Your task to perform on an android device: turn off wifi Image 0: 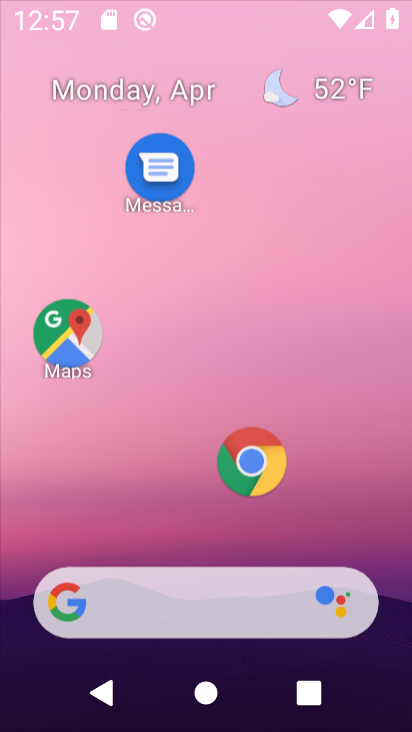
Step 0: click (192, 135)
Your task to perform on an android device: turn off wifi Image 1: 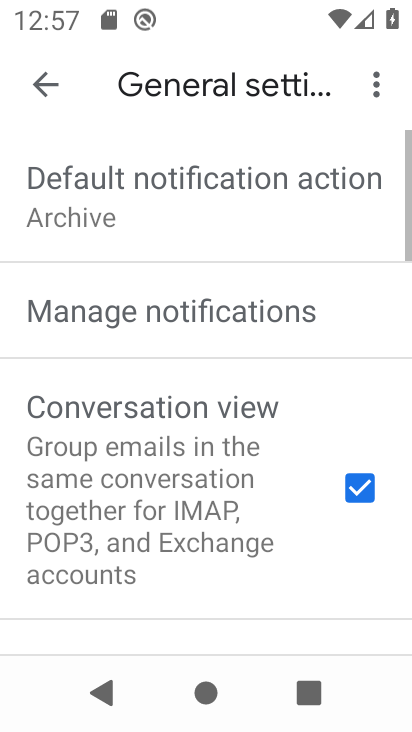
Step 1: press home button
Your task to perform on an android device: turn off wifi Image 2: 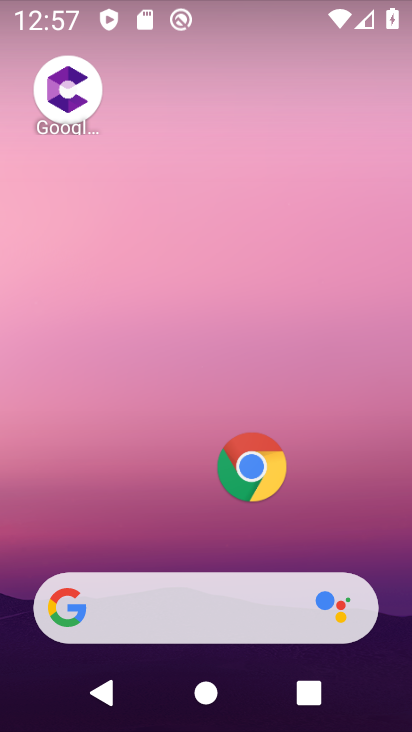
Step 2: drag from (197, 283) to (197, 139)
Your task to perform on an android device: turn off wifi Image 3: 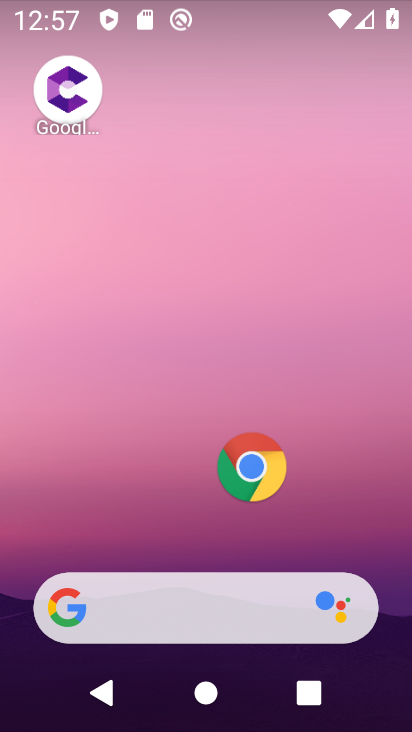
Step 3: drag from (190, 347) to (190, 91)
Your task to perform on an android device: turn off wifi Image 4: 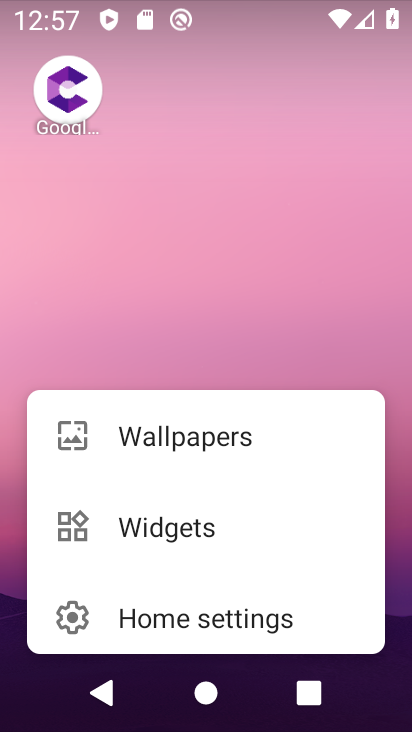
Step 4: click (194, 264)
Your task to perform on an android device: turn off wifi Image 5: 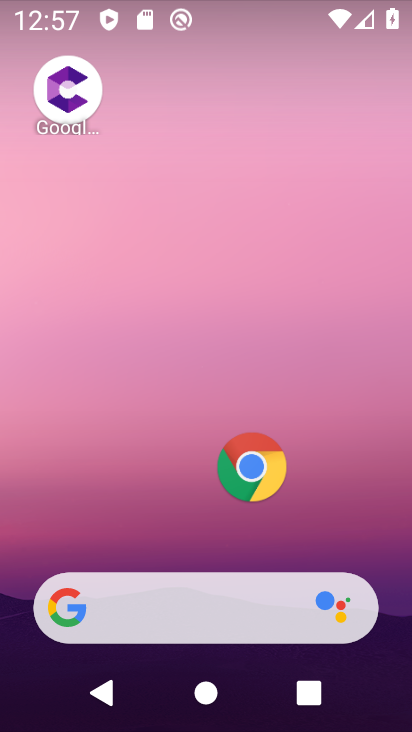
Step 5: drag from (190, 377) to (200, 73)
Your task to perform on an android device: turn off wifi Image 6: 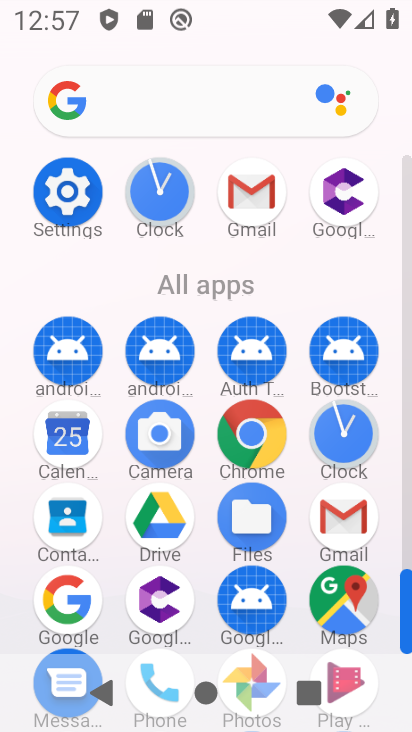
Step 6: click (72, 194)
Your task to perform on an android device: turn off wifi Image 7: 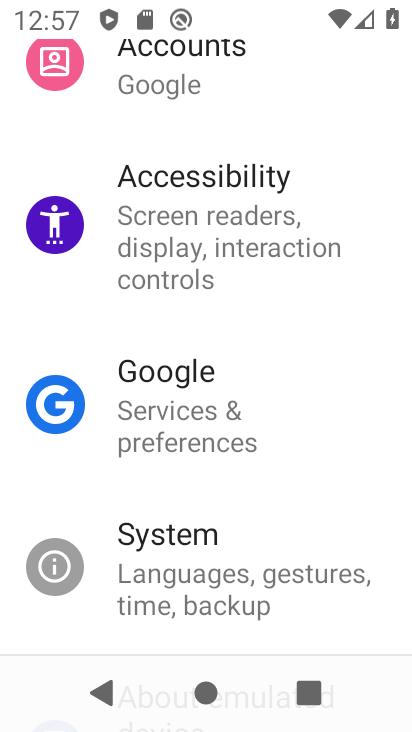
Step 7: drag from (175, 164) to (176, 529)
Your task to perform on an android device: turn off wifi Image 8: 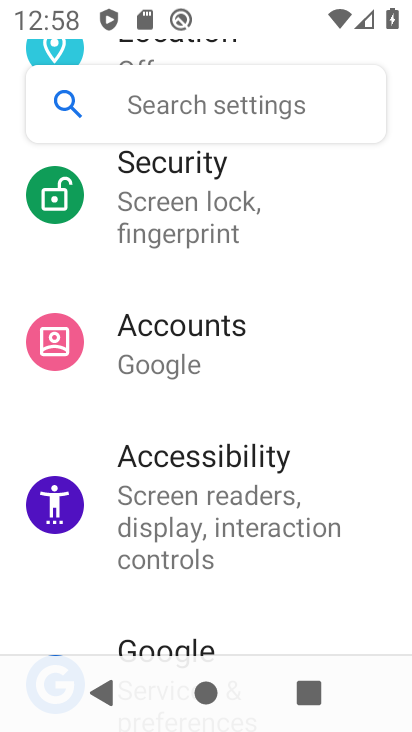
Step 8: drag from (272, 186) to (243, 504)
Your task to perform on an android device: turn off wifi Image 9: 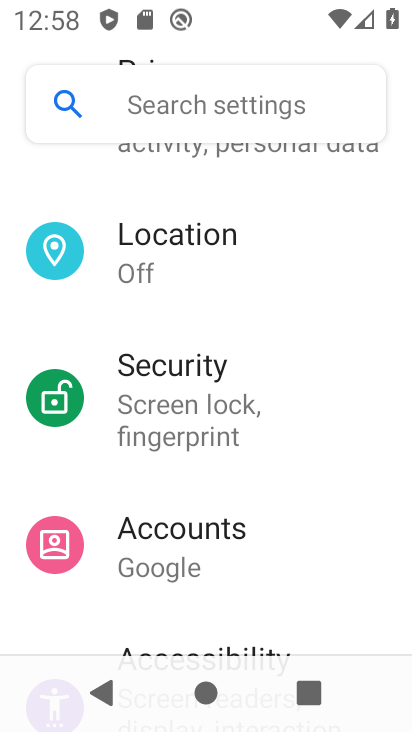
Step 9: drag from (230, 294) to (218, 526)
Your task to perform on an android device: turn off wifi Image 10: 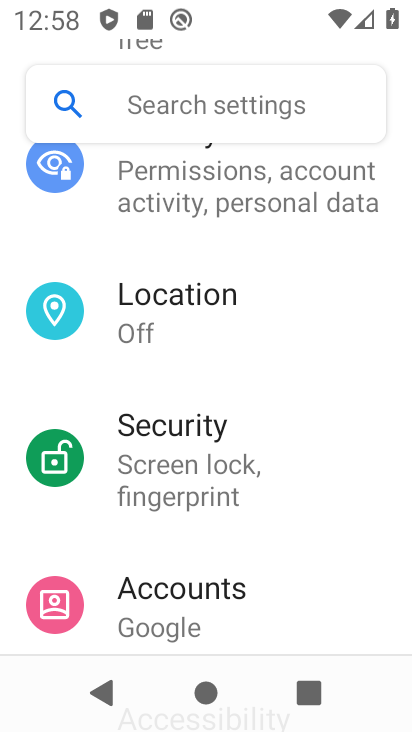
Step 10: drag from (211, 275) to (208, 551)
Your task to perform on an android device: turn off wifi Image 11: 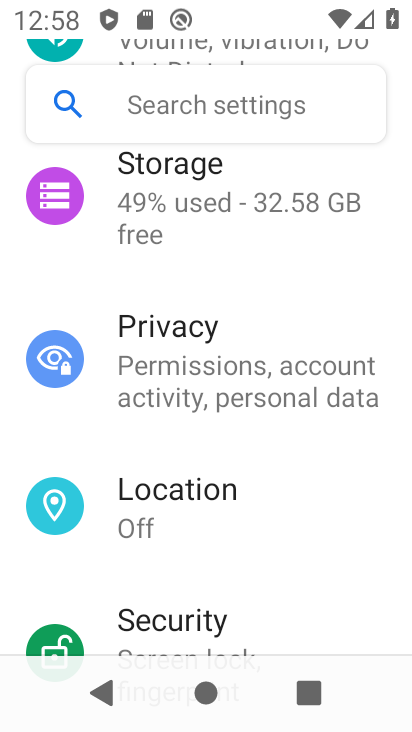
Step 11: drag from (235, 266) to (225, 548)
Your task to perform on an android device: turn off wifi Image 12: 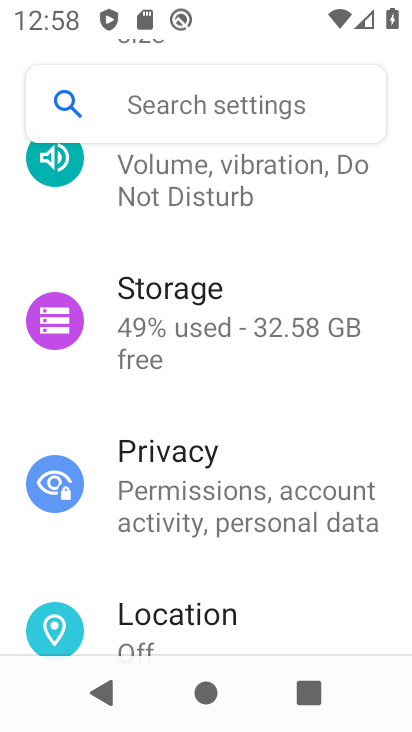
Step 12: drag from (225, 334) to (233, 570)
Your task to perform on an android device: turn off wifi Image 13: 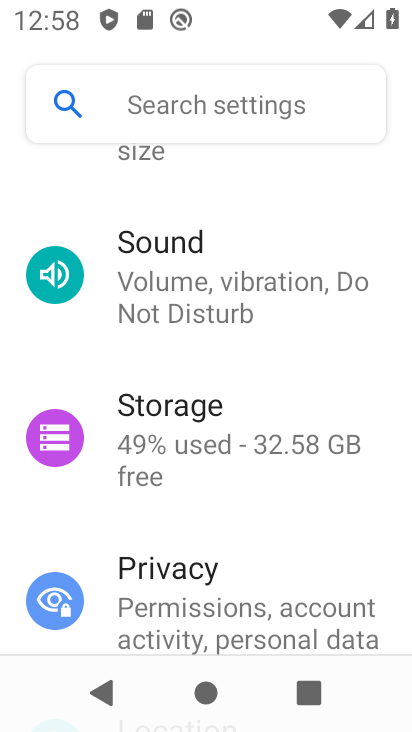
Step 13: drag from (225, 254) to (235, 487)
Your task to perform on an android device: turn off wifi Image 14: 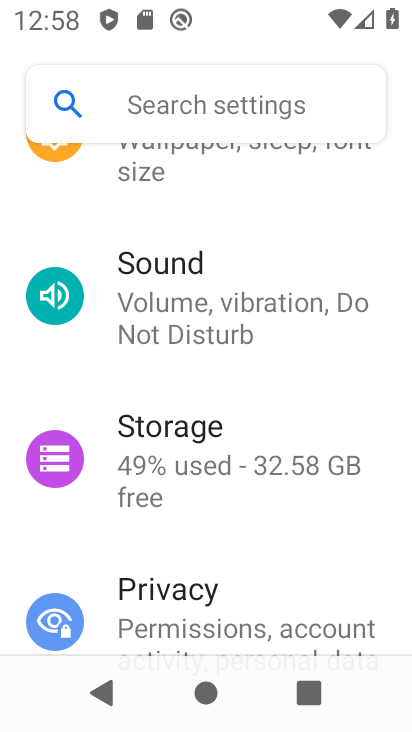
Step 14: drag from (240, 351) to (254, 585)
Your task to perform on an android device: turn off wifi Image 15: 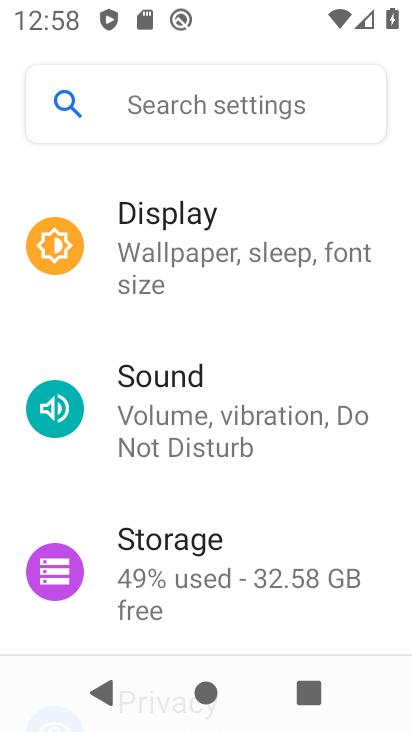
Step 15: drag from (246, 258) to (238, 565)
Your task to perform on an android device: turn off wifi Image 16: 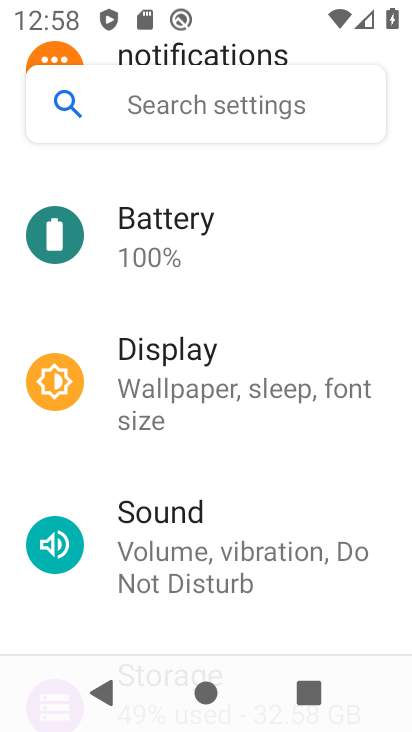
Step 16: drag from (244, 283) to (245, 635)
Your task to perform on an android device: turn off wifi Image 17: 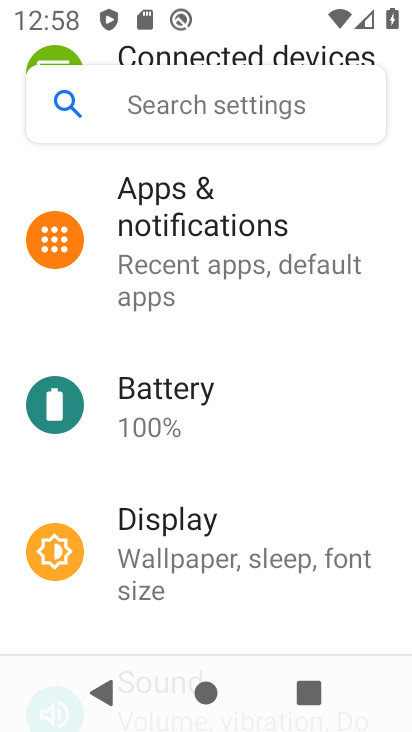
Step 17: drag from (265, 217) to (274, 574)
Your task to perform on an android device: turn off wifi Image 18: 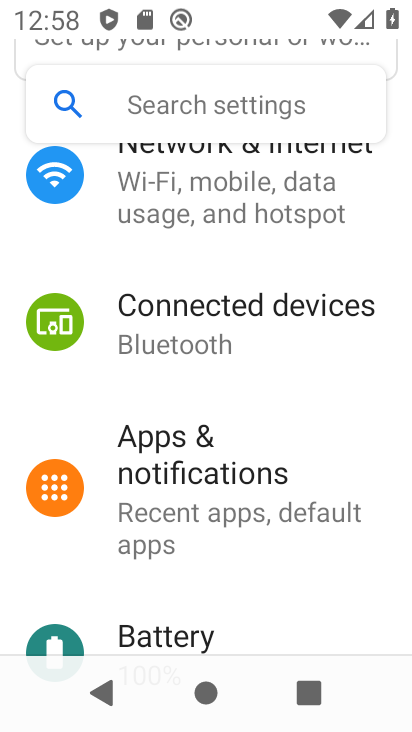
Step 18: click (257, 195)
Your task to perform on an android device: turn off wifi Image 19: 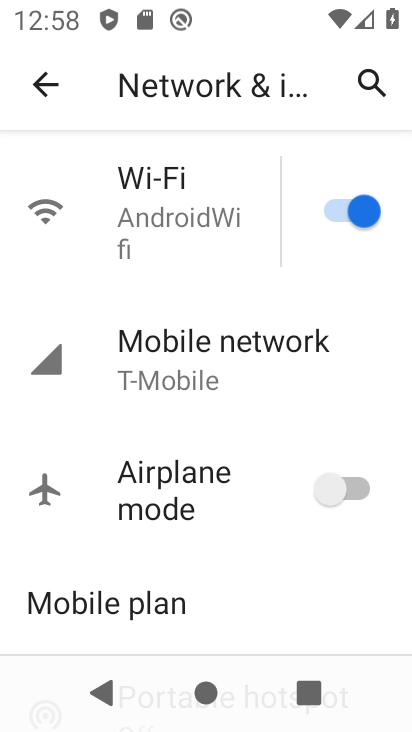
Step 19: click (332, 208)
Your task to perform on an android device: turn off wifi Image 20: 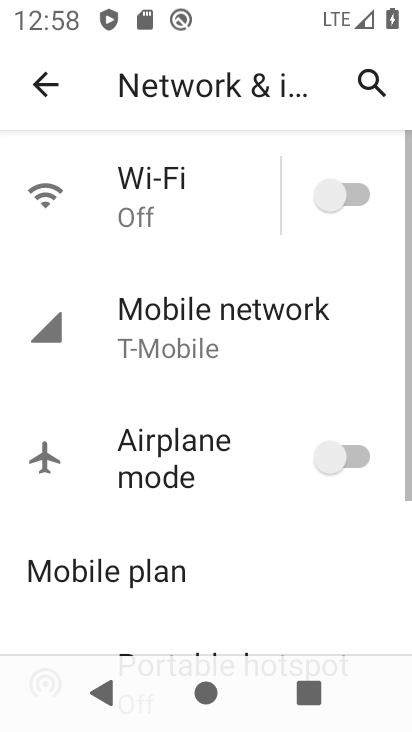
Step 20: task complete